Your task to perform on an android device: add a contact Image 0: 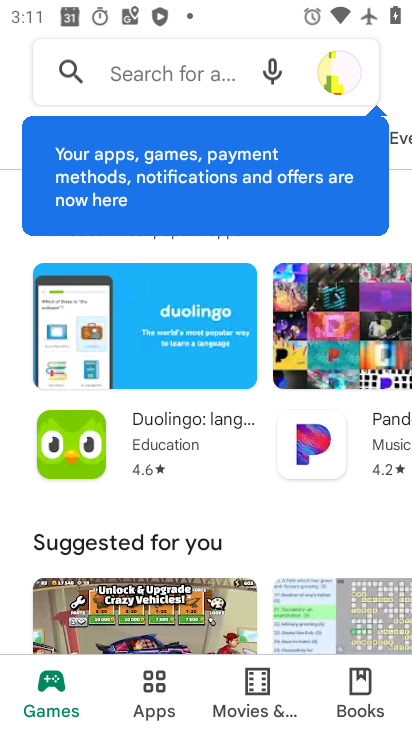
Step 0: press home button
Your task to perform on an android device: add a contact Image 1: 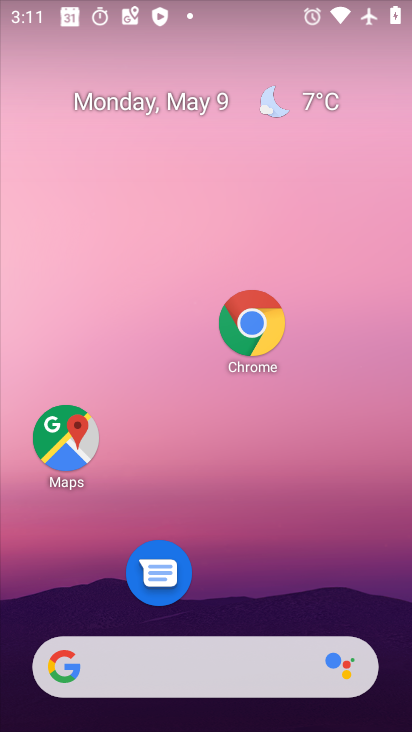
Step 1: drag from (183, 628) to (344, 6)
Your task to perform on an android device: add a contact Image 2: 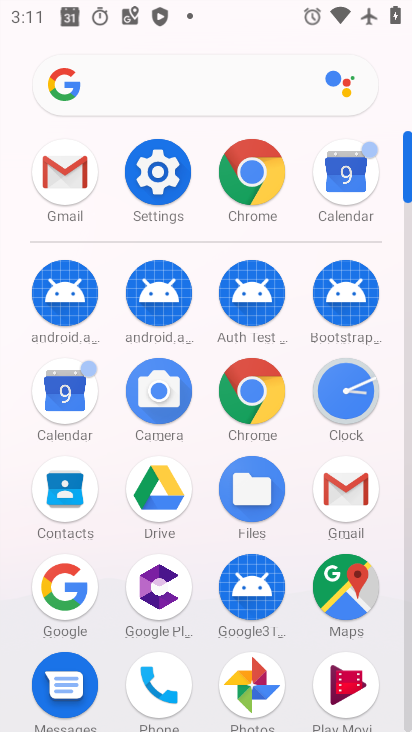
Step 2: click (73, 506)
Your task to perform on an android device: add a contact Image 3: 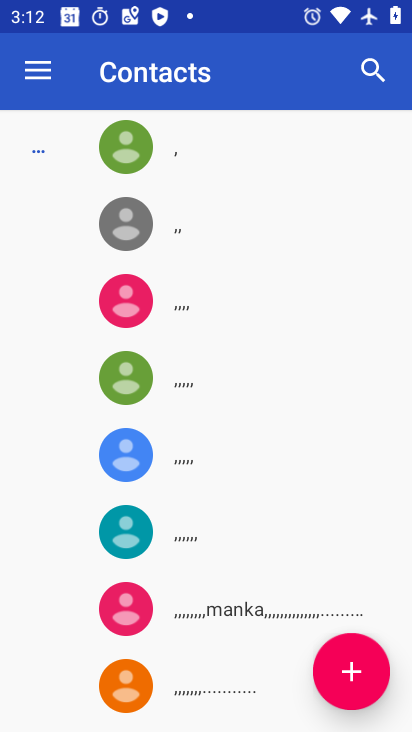
Step 3: click (341, 670)
Your task to perform on an android device: add a contact Image 4: 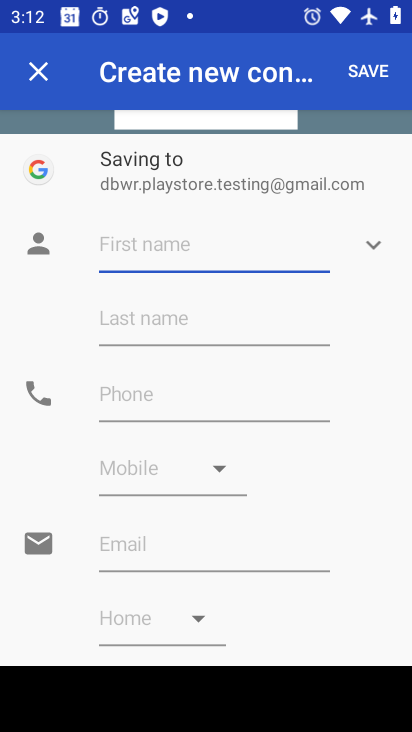
Step 4: type "mjgkiu"
Your task to perform on an android device: add a contact Image 5: 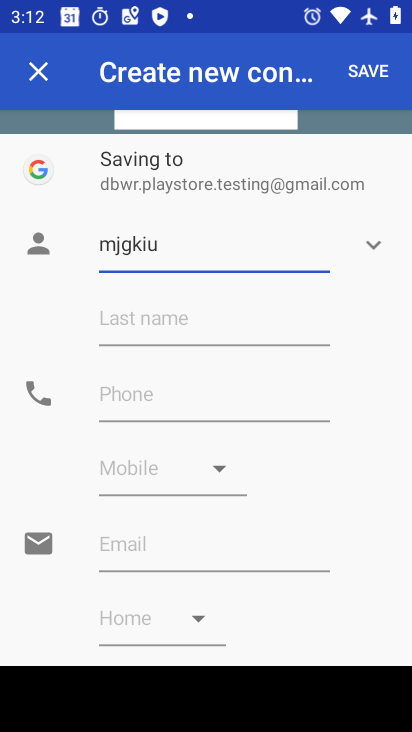
Step 5: click (116, 391)
Your task to perform on an android device: add a contact Image 6: 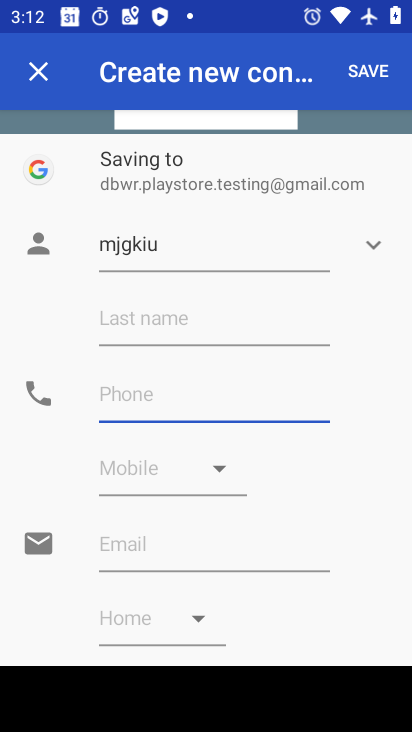
Step 6: type "4354"
Your task to perform on an android device: add a contact Image 7: 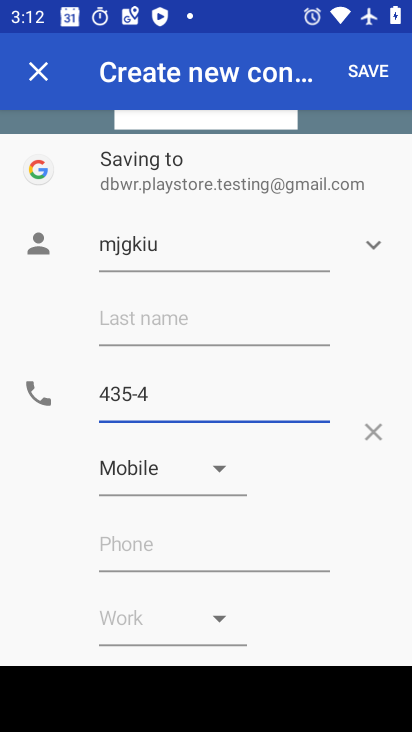
Step 7: click (366, 72)
Your task to perform on an android device: add a contact Image 8: 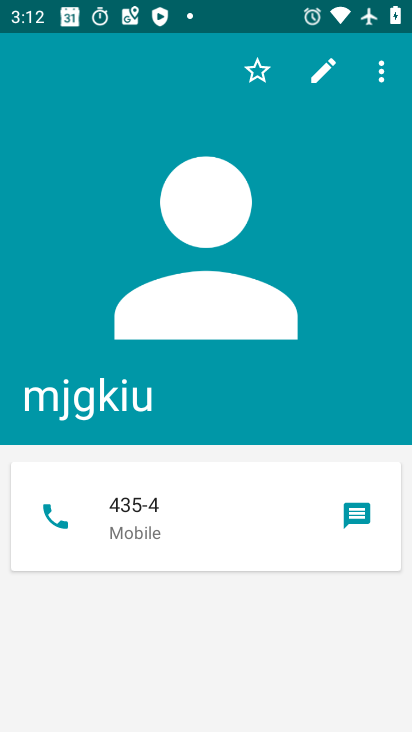
Step 8: task complete